Your task to perform on an android device: Go to Amazon Image 0: 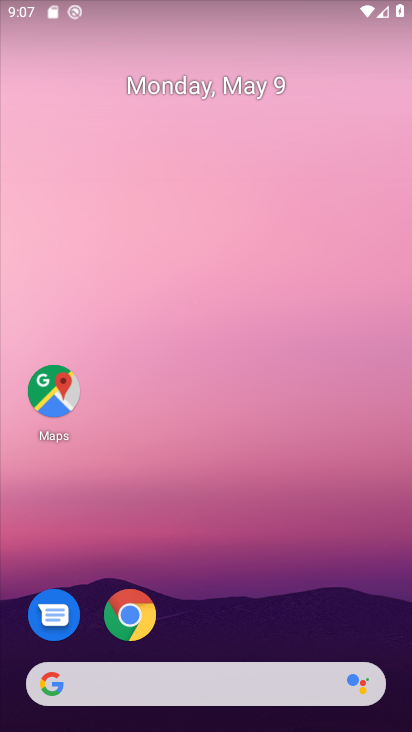
Step 0: drag from (250, 682) to (302, 263)
Your task to perform on an android device: Go to Amazon Image 1: 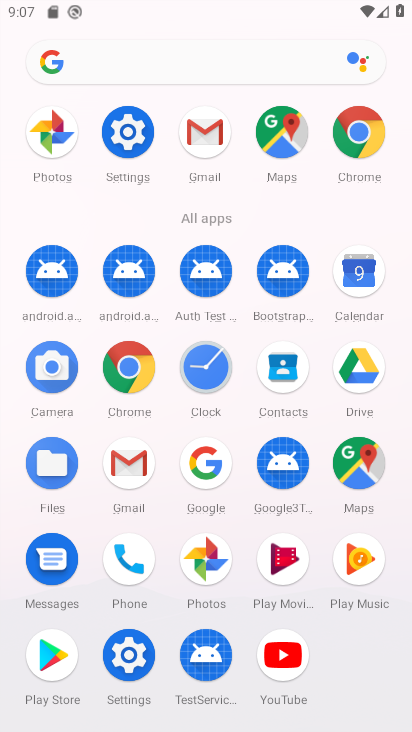
Step 1: click (345, 150)
Your task to perform on an android device: Go to Amazon Image 2: 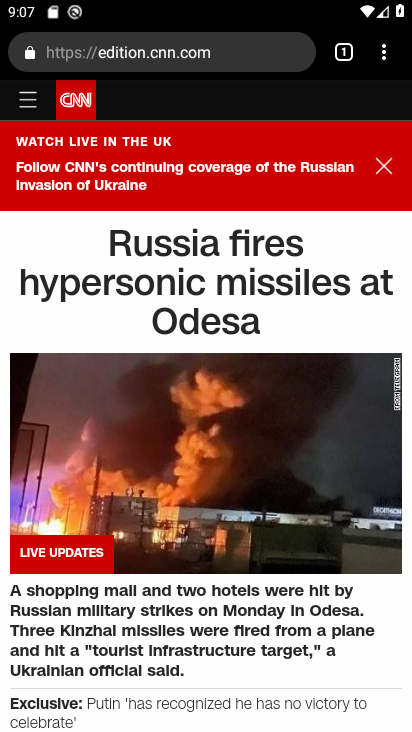
Step 2: click (378, 66)
Your task to perform on an android device: Go to Amazon Image 3: 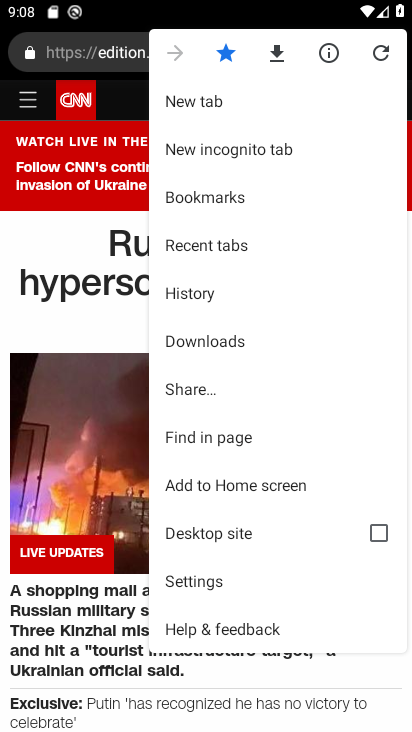
Step 3: click (220, 105)
Your task to perform on an android device: Go to Amazon Image 4: 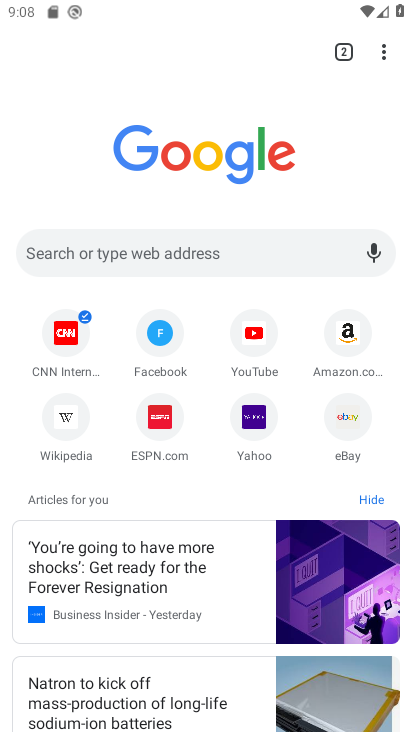
Step 4: click (351, 339)
Your task to perform on an android device: Go to Amazon Image 5: 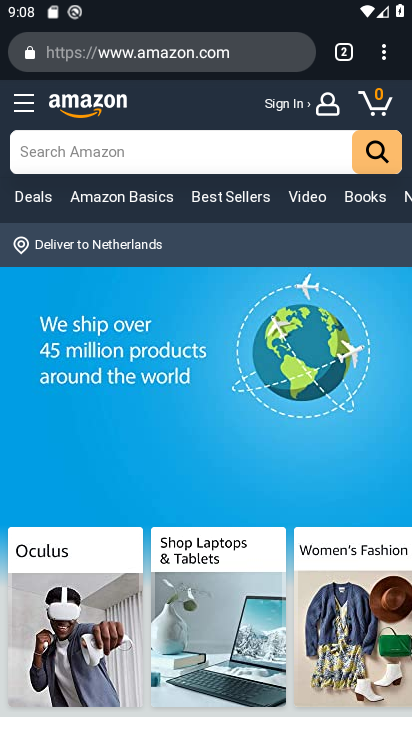
Step 5: task complete